Your task to perform on an android device: Check the weather Image 0: 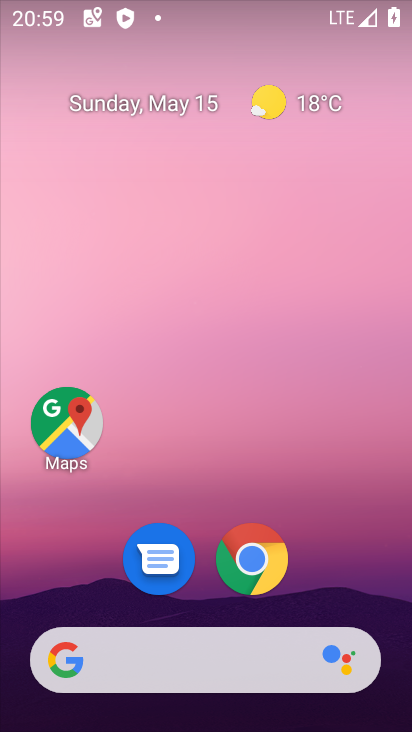
Step 0: click (186, 665)
Your task to perform on an android device: Check the weather Image 1: 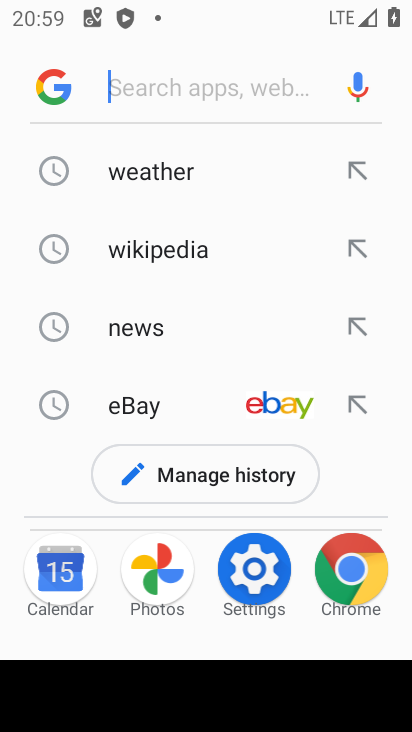
Step 1: click (141, 158)
Your task to perform on an android device: Check the weather Image 2: 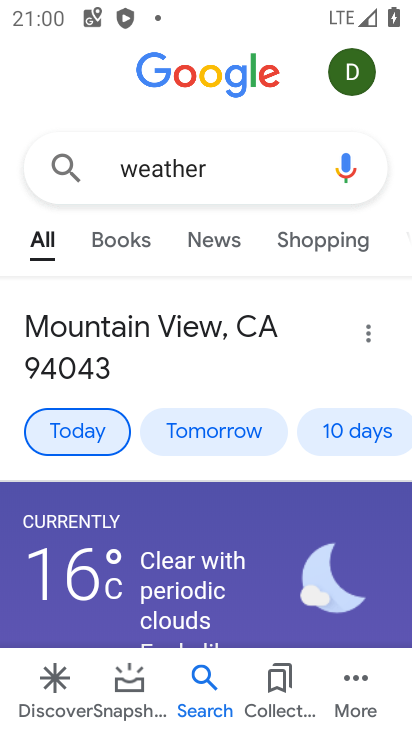
Step 2: task complete